Your task to perform on an android device: Open accessibility settings Image 0: 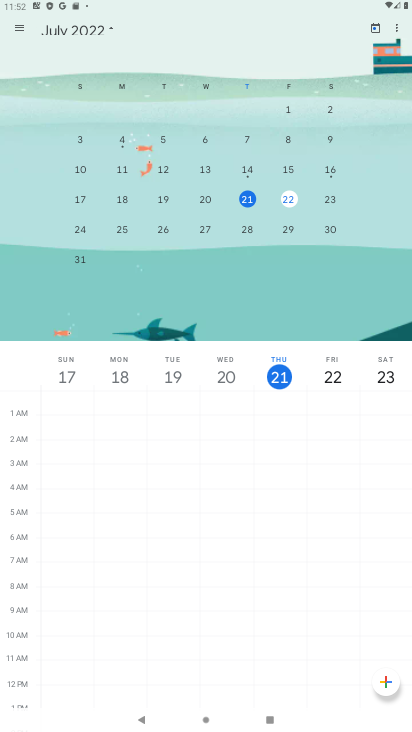
Step 0: press home button
Your task to perform on an android device: Open accessibility settings Image 1: 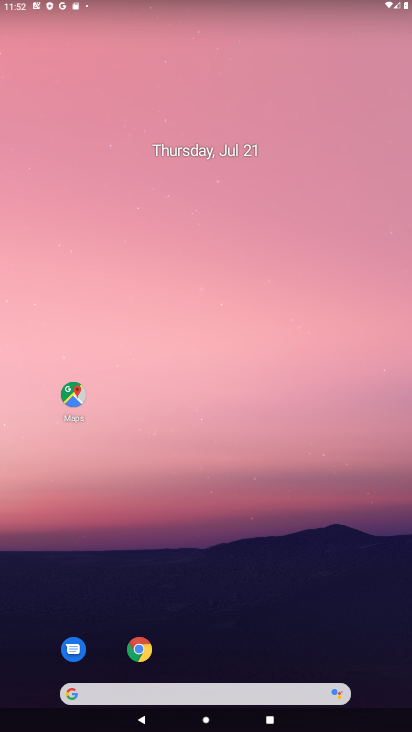
Step 1: drag from (233, 725) to (250, 102)
Your task to perform on an android device: Open accessibility settings Image 2: 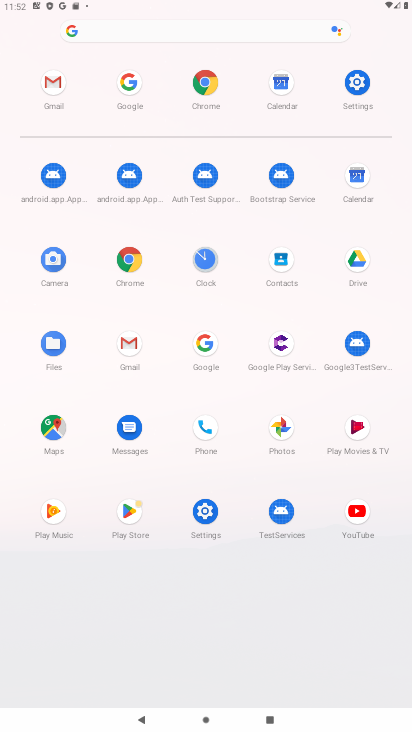
Step 2: click (352, 92)
Your task to perform on an android device: Open accessibility settings Image 3: 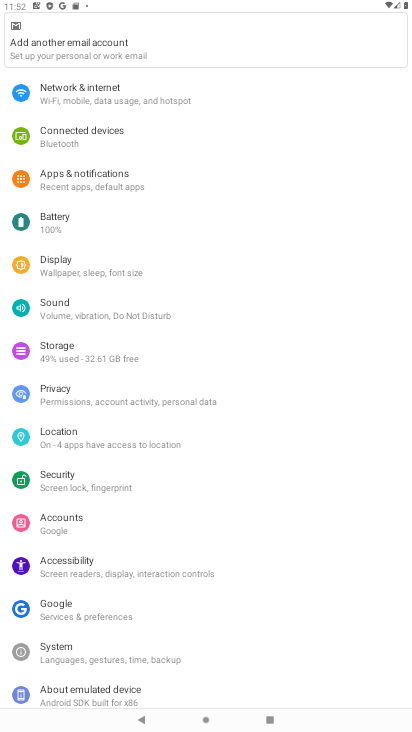
Step 3: click (68, 571)
Your task to perform on an android device: Open accessibility settings Image 4: 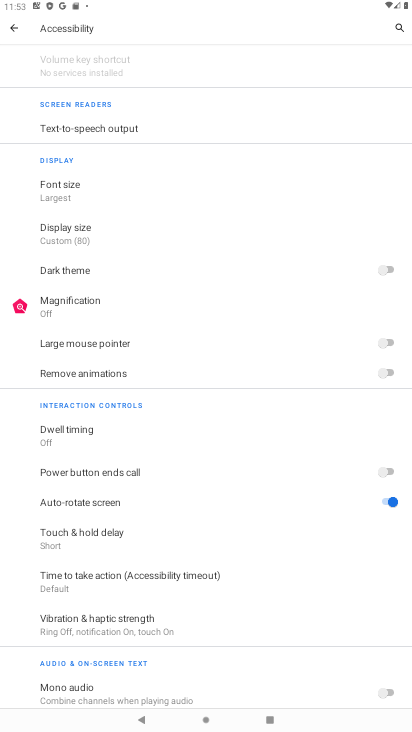
Step 4: task complete